Your task to perform on an android device: delete a single message in the gmail app Image 0: 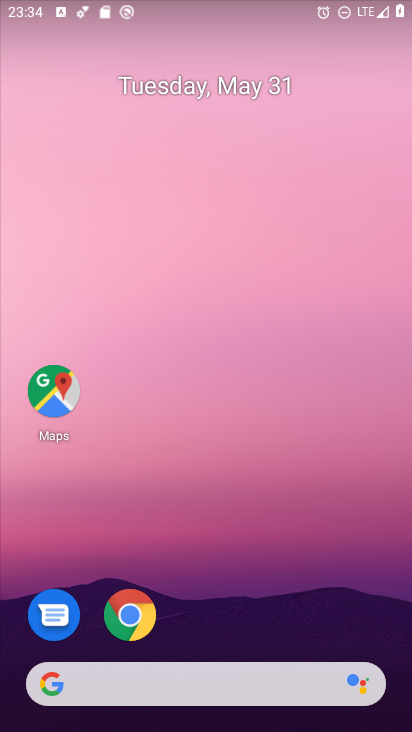
Step 0: drag from (390, 631) to (319, 184)
Your task to perform on an android device: delete a single message in the gmail app Image 1: 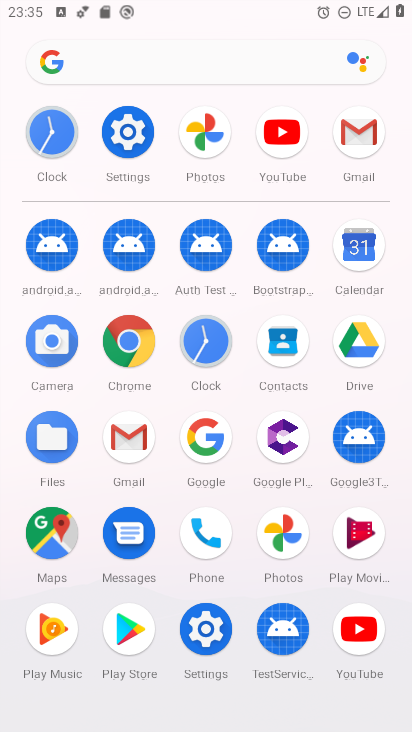
Step 1: click (130, 436)
Your task to perform on an android device: delete a single message in the gmail app Image 2: 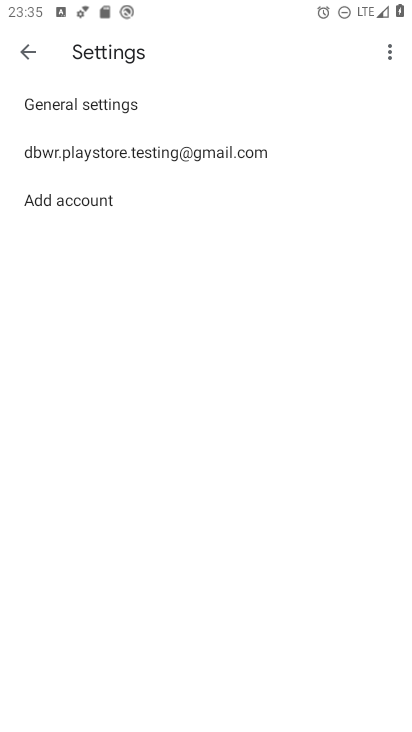
Step 2: press back button
Your task to perform on an android device: delete a single message in the gmail app Image 3: 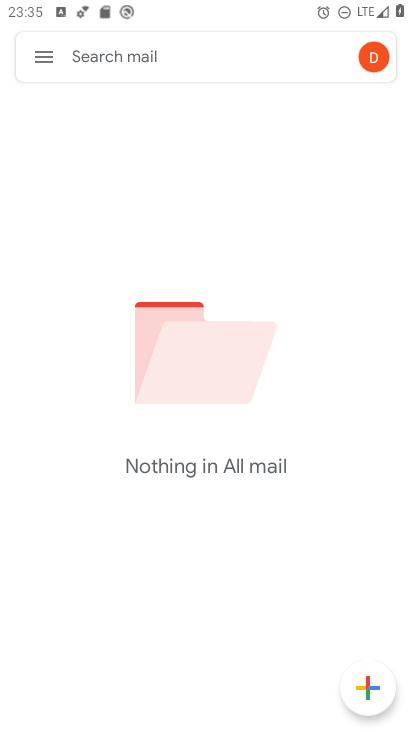
Step 3: click (41, 53)
Your task to perform on an android device: delete a single message in the gmail app Image 4: 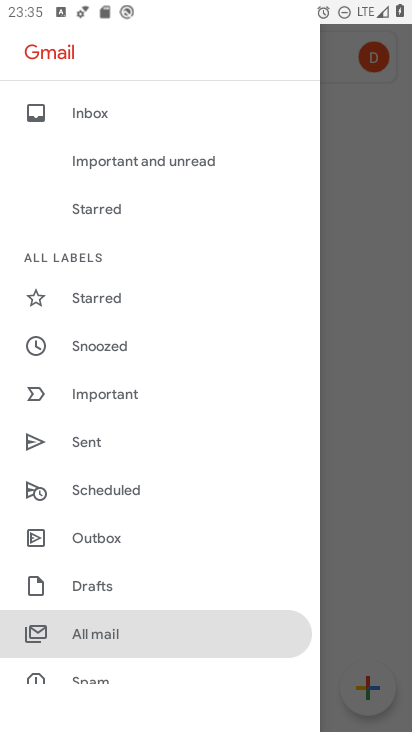
Step 4: drag from (155, 632) to (181, 284)
Your task to perform on an android device: delete a single message in the gmail app Image 5: 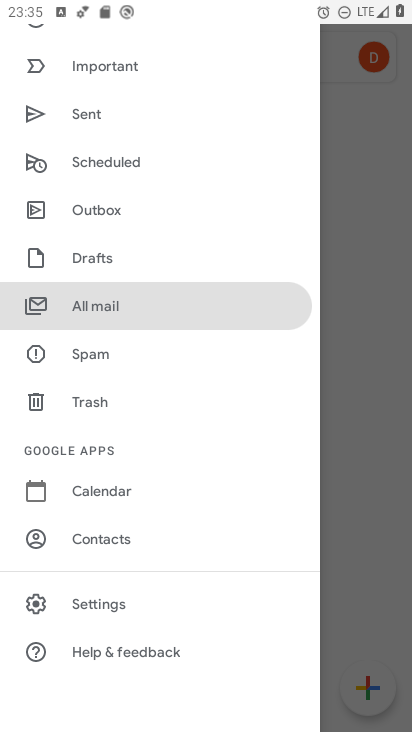
Step 5: click (138, 313)
Your task to perform on an android device: delete a single message in the gmail app Image 6: 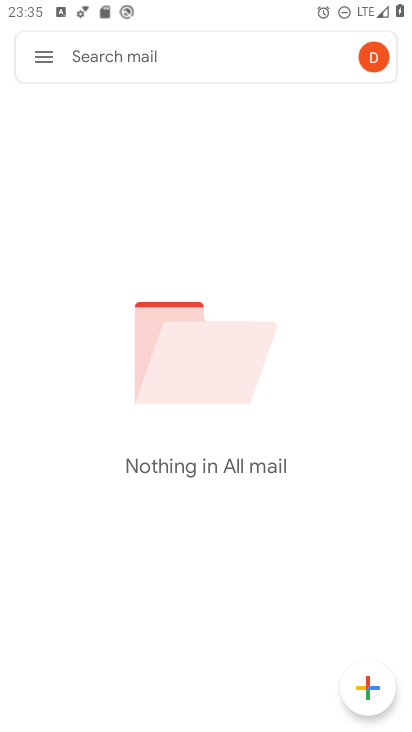
Step 6: task complete